Your task to perform on an android device: change notifications settings Image 0: 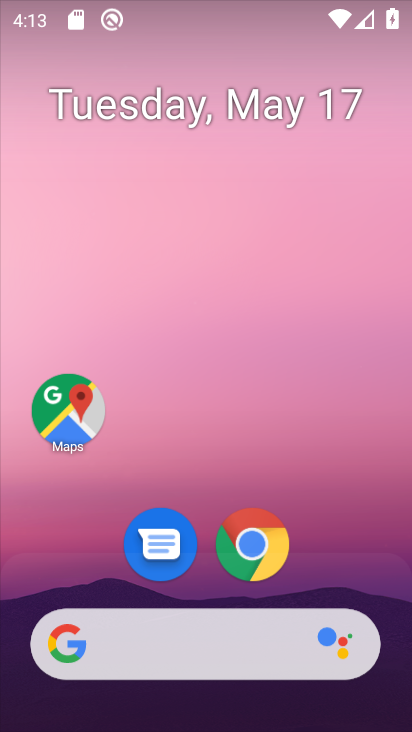
Step 0: drag from (100, 562) to (314, 101)
Your task to perform on an android device: change notifications settings Image 1: 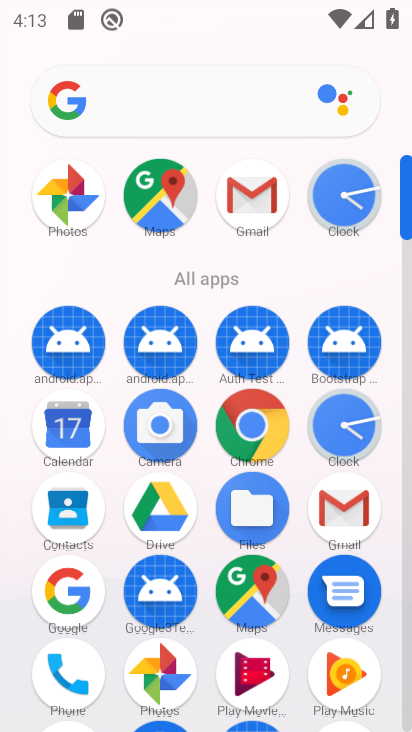
Step 1: drag from (132, 613) to (232, 396)
Your task to perform on an android device: change notifications settings Image 2: 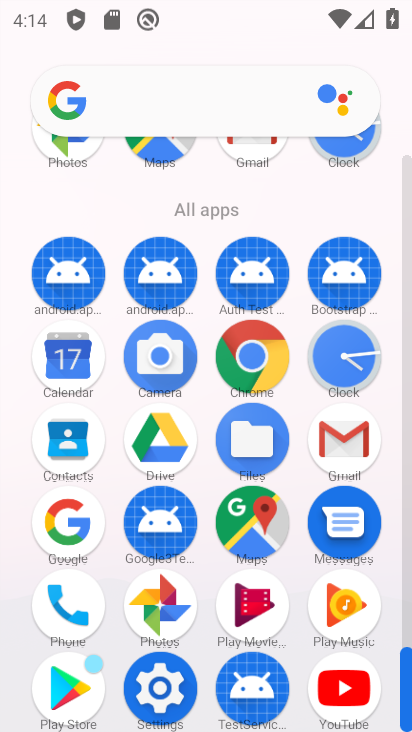
Step 2: click (161, 687)
Your task to perform on an android device: change notifications settings Image 3: 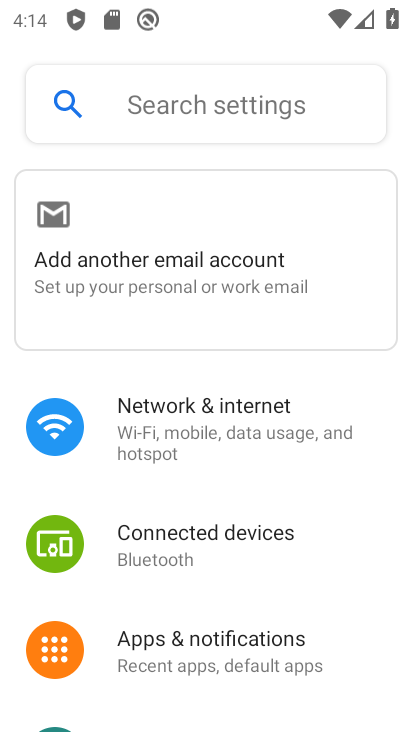
Step 3: drag from (146, 649) to (323, 318)
Your task to perform on an android device: change notifications settings Image 4: 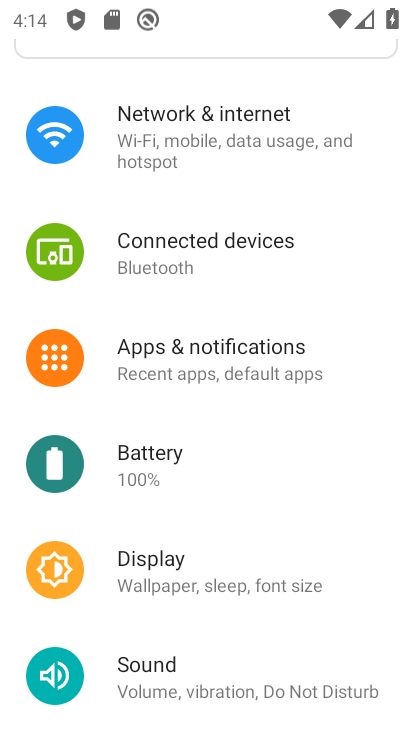
Step 4: click (281, 363)
Your task to perform on an android device: change notifications settings Image 5: 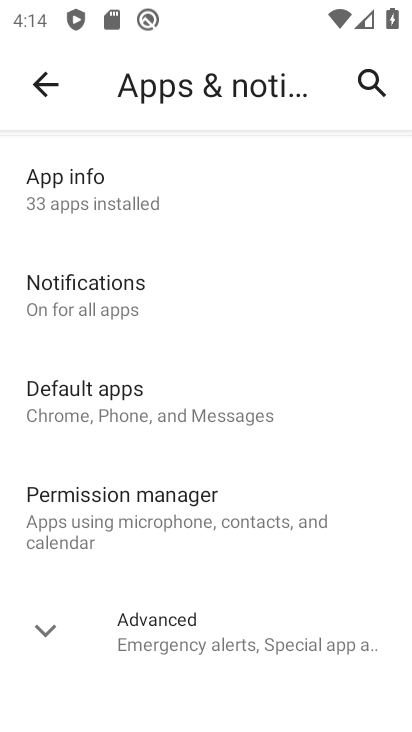
Step 5: click (174, 298)
Your task to perform on an android device: change notifications settings Image 6: 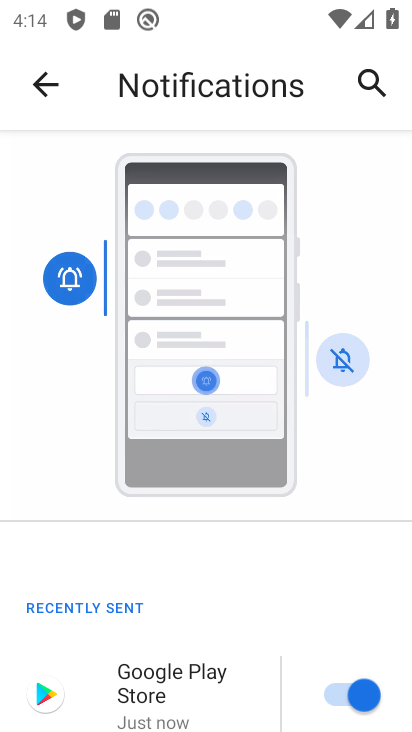
Step 6: drag from (211, 661) to (360, 151)
Your task to perform on an android device: change notifications settings Image 7: 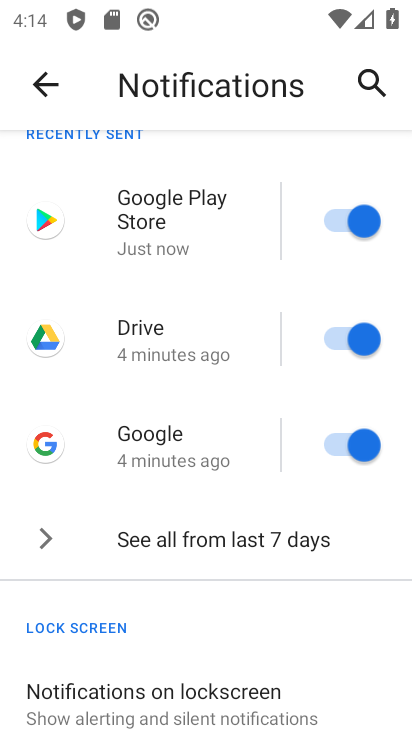
Step 7: drag from (224, 664) to (264, 537)
Your task to perform on an android device: change notifications settings Image 8: 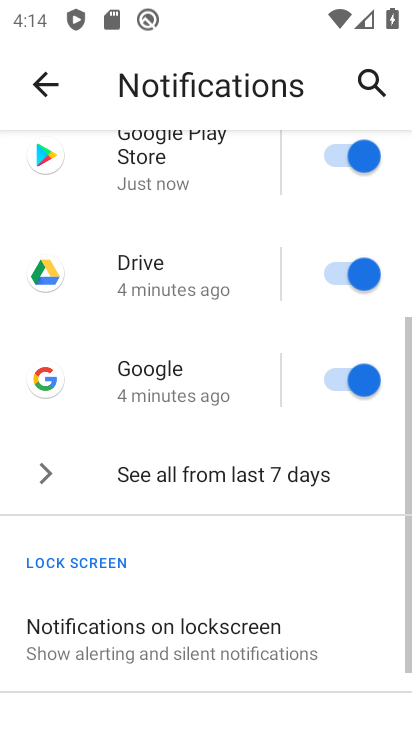
Step 8: click (347, 383)
Your task to perform on an android device: change notifications settings Image 9: 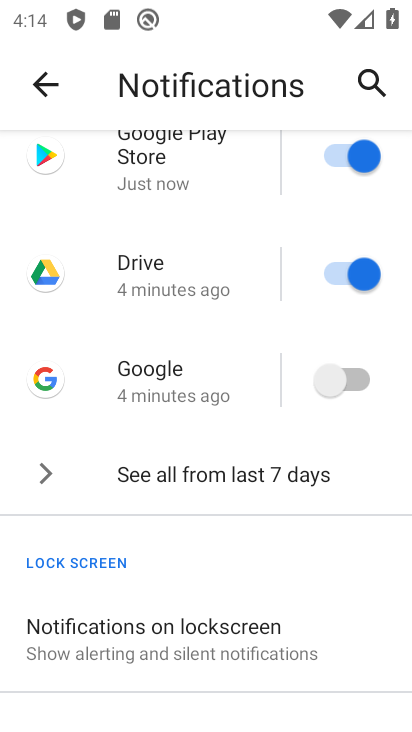
Step 9: click (341, 286)
Your task to perform on an android device: change notifications settings Image 10: 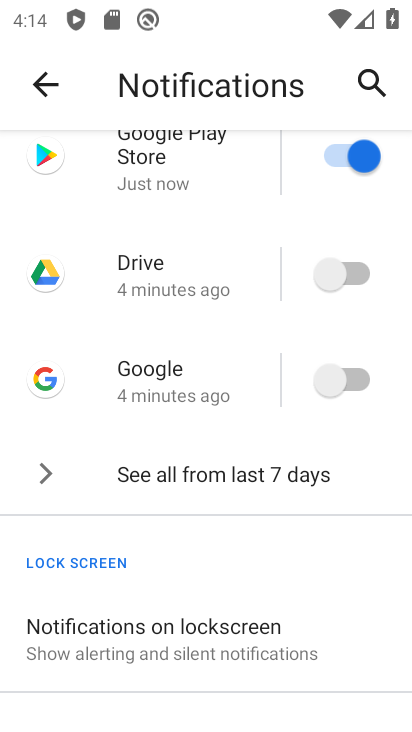
Step 10: click (296, 663)
Your task to perform on an android device: change notifications settings Image 11: 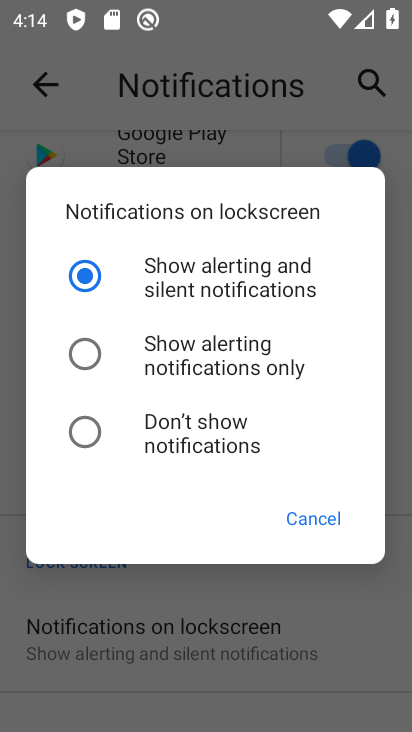
Step 11: click (246, 375)
Your task to perform on an android device: change notifications settings Image 12: 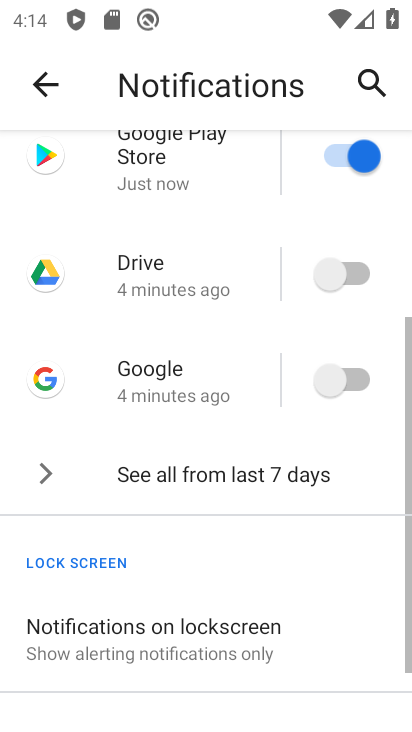
Step 12: drag from (233, 636) to (325, 291)
Your task to perform on an android device: change notifications settings Image 13: 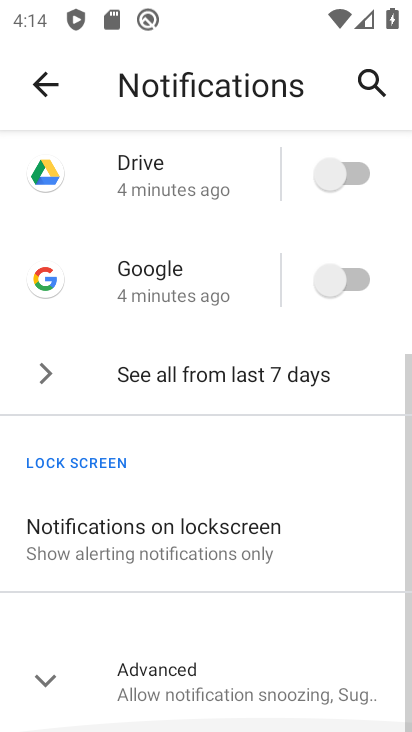
Step 13: click (245, 684)
Your task to perform on an android device: change notifications settings Image 14: 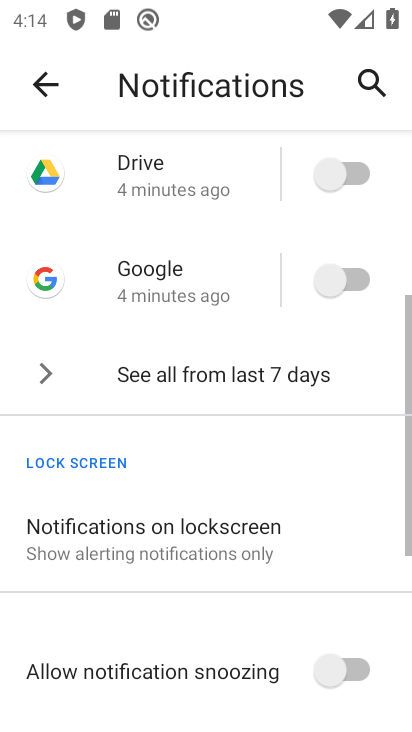
Step 14: drag from (266, 700) to (381, 283)
Your task to perform on an android device: change notifications settings Image 15: 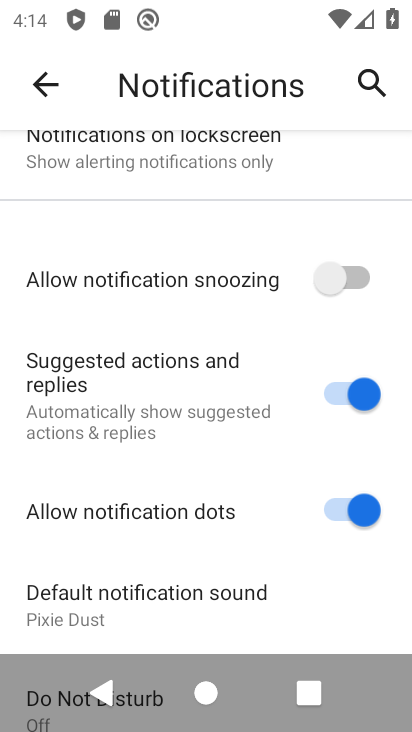
Step 15: click (353, 381)
Your task to perform on an android device: change notifications settings Image 16: 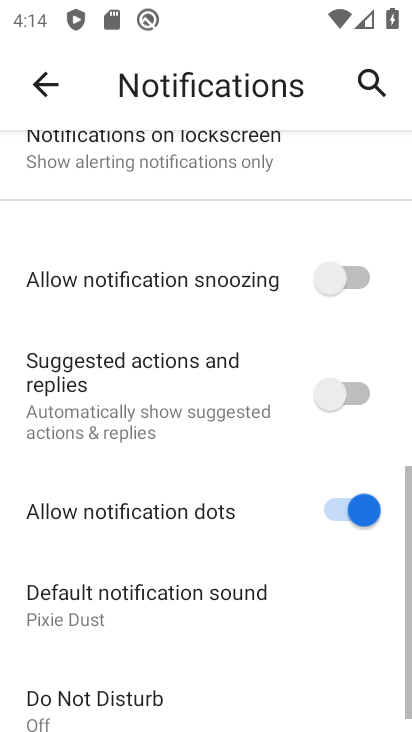
Step 16: click (342, 513)
Your task to perform on an android device: change notifications settings Image 17: 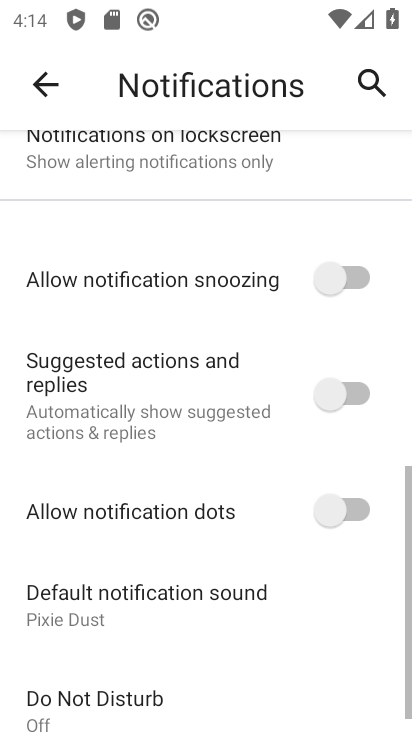
Step 17: click (306, 599)
Your task to perform on an android device: change notifications settings Image 18: 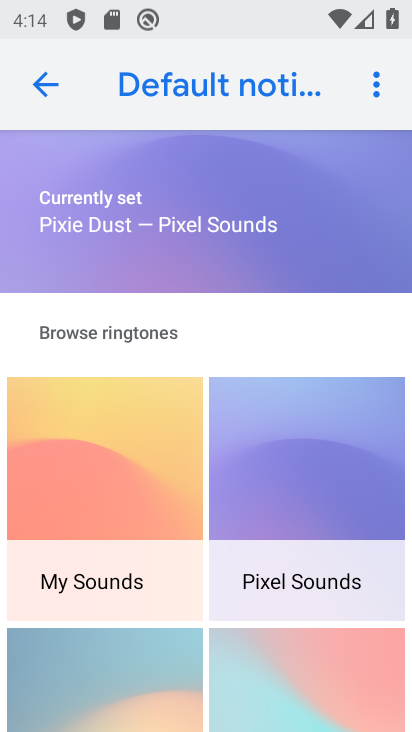
Step 18: click (327, 474)
Your task to perform on an android device: change notifications settings Image 19: 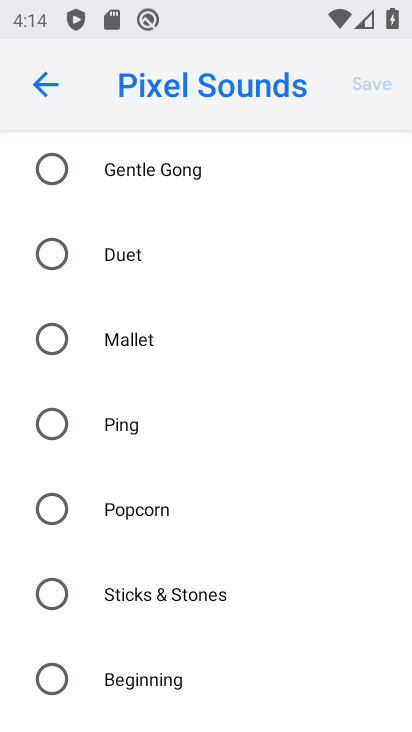
Step 19: click (183, 432)
Your task to perform on an android device: change notifications settings Image 20: 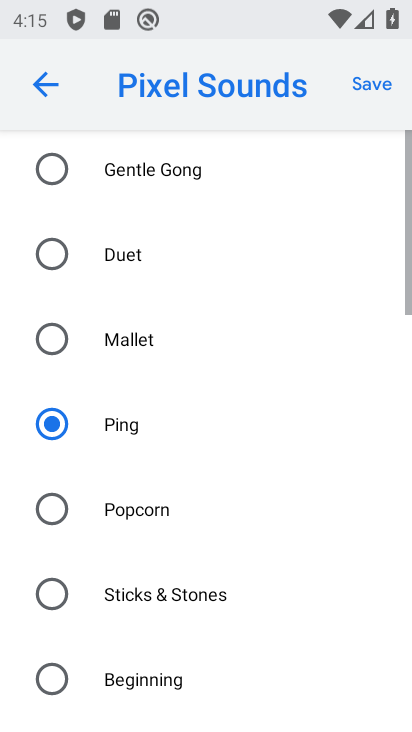
Step 20: click (380, 120)
Your task to perform on an android device: change notifications settings Image 21: 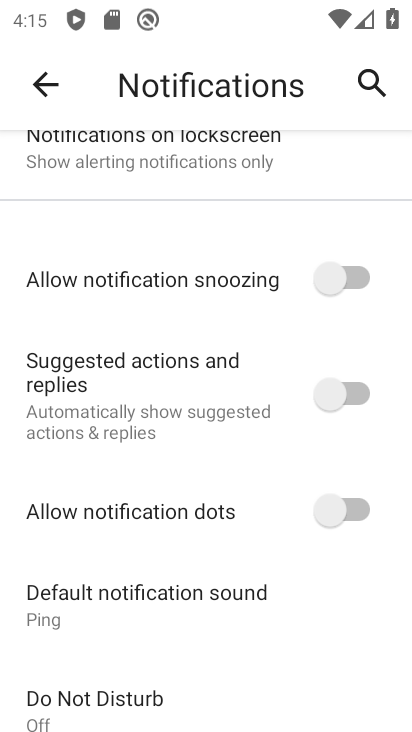
Step 21: task complete